Your task to perform on an android device: change text size in settings app Image 0: 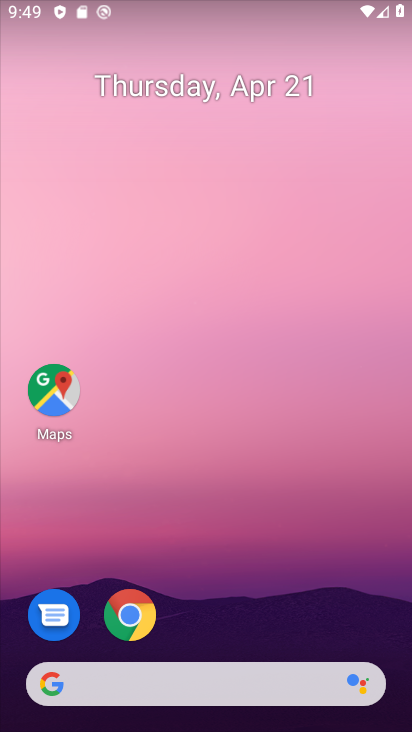
Step 0: drag from (299, 566) to (292, 33)
Your task to perform on an android device: change text size in settings app Image 1: 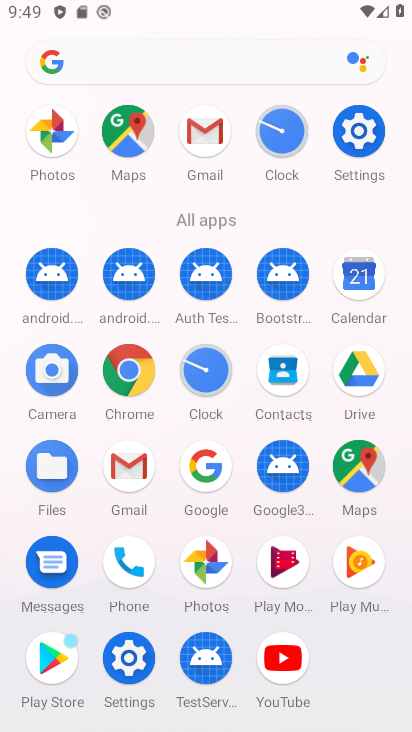
Step 1: click (135, 654)
Your task to perform on an android device: change text size in settings app Image 2: 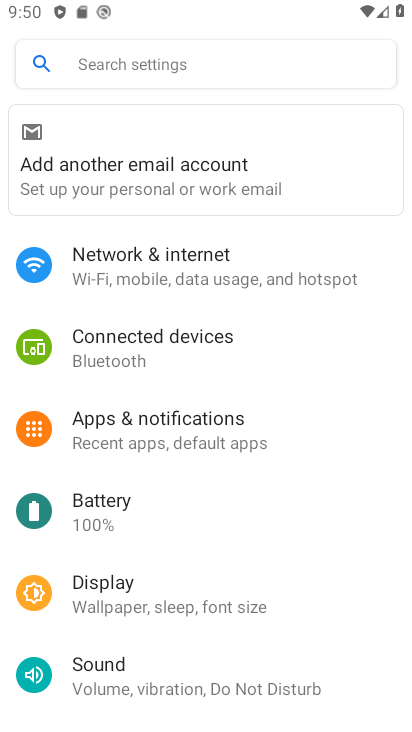
Step 2: drag from (282, 660) to (246, 336)
Your task to perform on an android device: change text size in settings app Image 3: 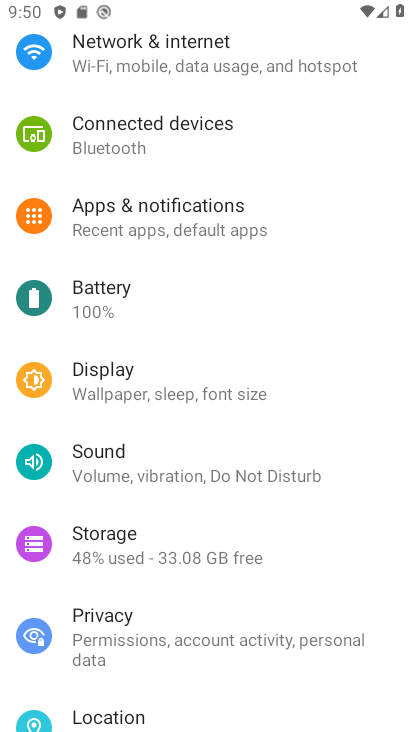
Step 3: drag from (235, 660) to (243, 185)
Your task to perform on an android device: change text size in settings app Image 4: 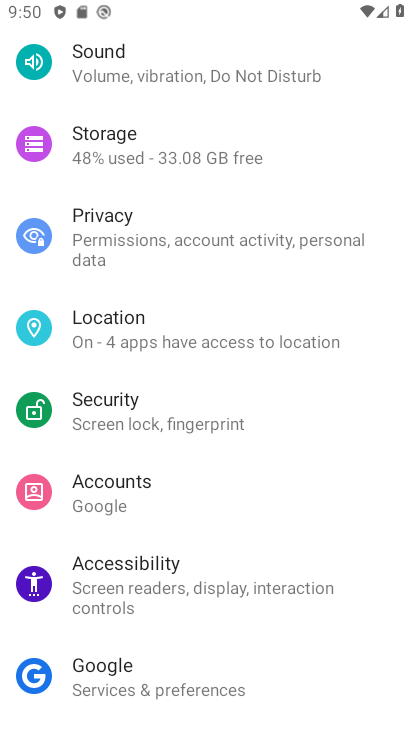
Step 4: drag from (258, 640) to (239, 184)
Your task to perform on an android device: change text size in settings app Image 5: 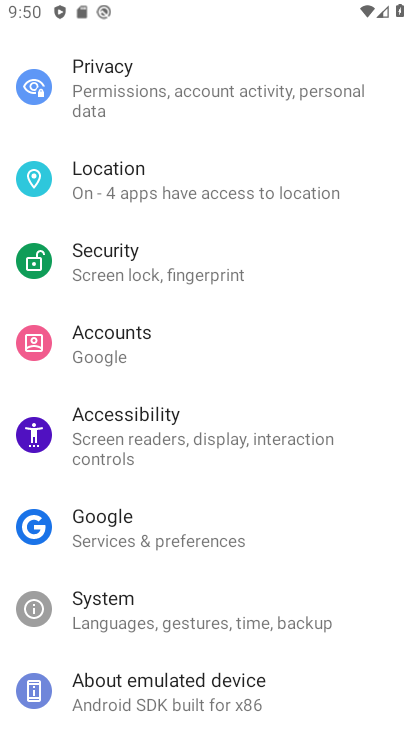
Step 5: drag from (290, 653) to (213, 673)
Your task to perform on an android device: change text size in settings app Image 6: 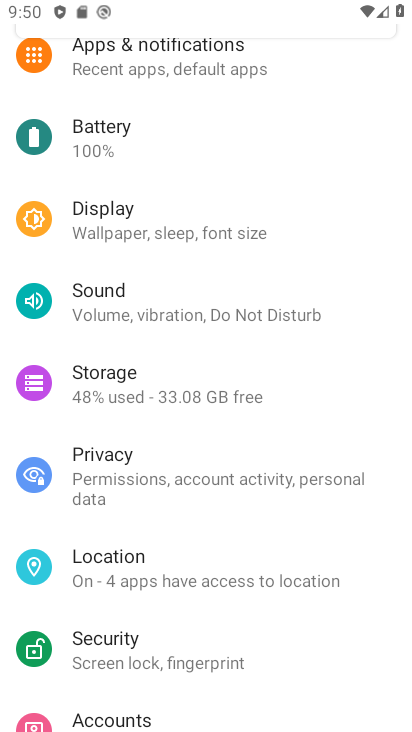
Step 6: click (128, 236)
Your task to perform on an android device: change text size in settings app Image 7: 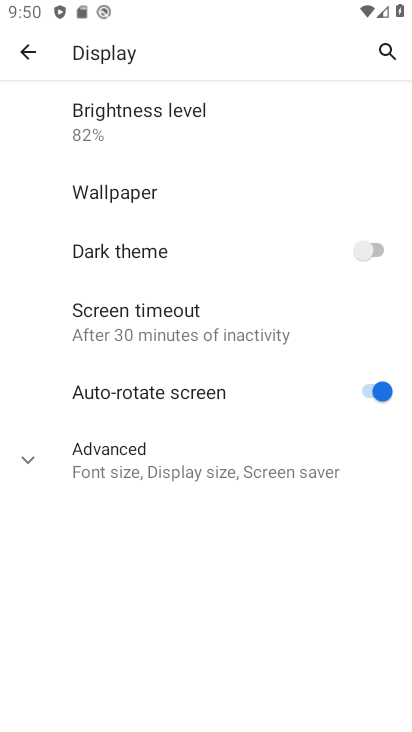
Step 7: click (175, 457)
Your task to perform on an android device: change text size in settings app Image 8: 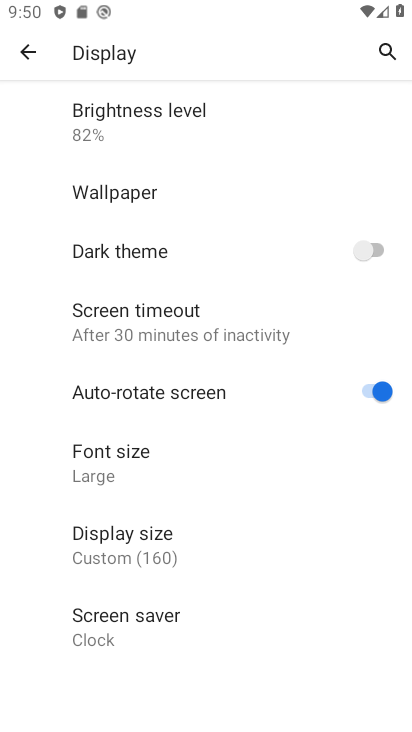
Step 8: click (148, 462)
Your task to perform on an android device: change text size in settings app Image 9: 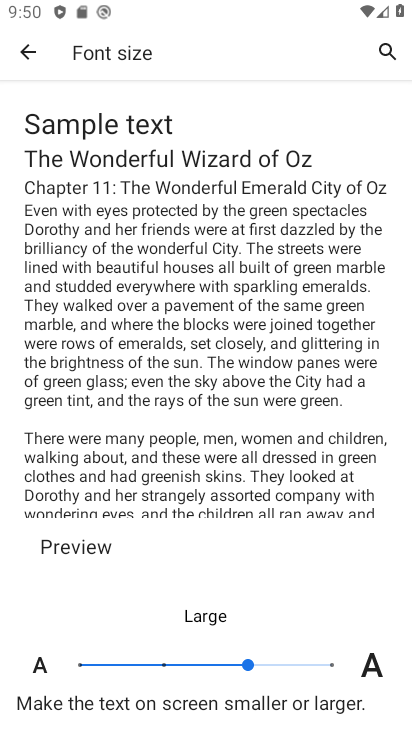
Step 9: task complete